Your task to perform on an android device: install app "Adobe Express: Graphic Design" Image 0: 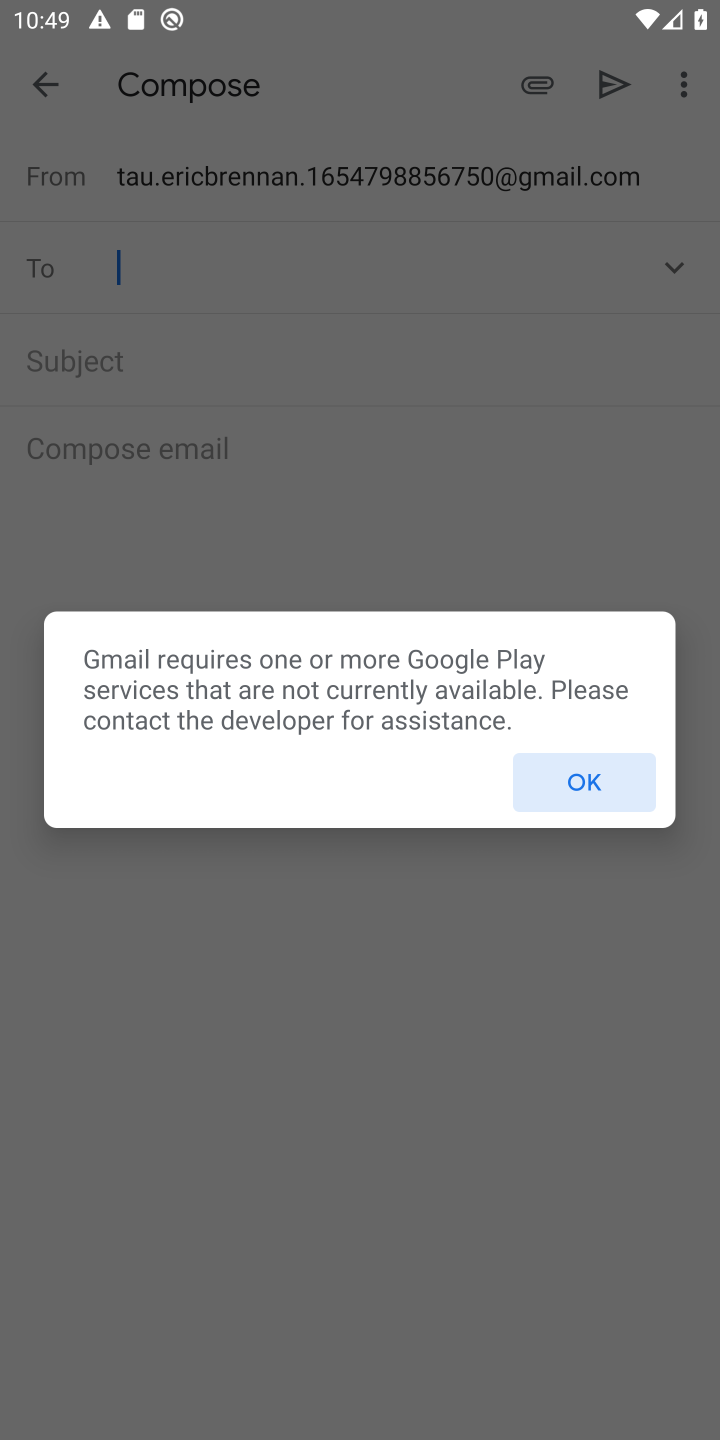
Step 0: press home button
Your task to perform on an android device: install app "Adobe Express: Graphic Design" Image 1: 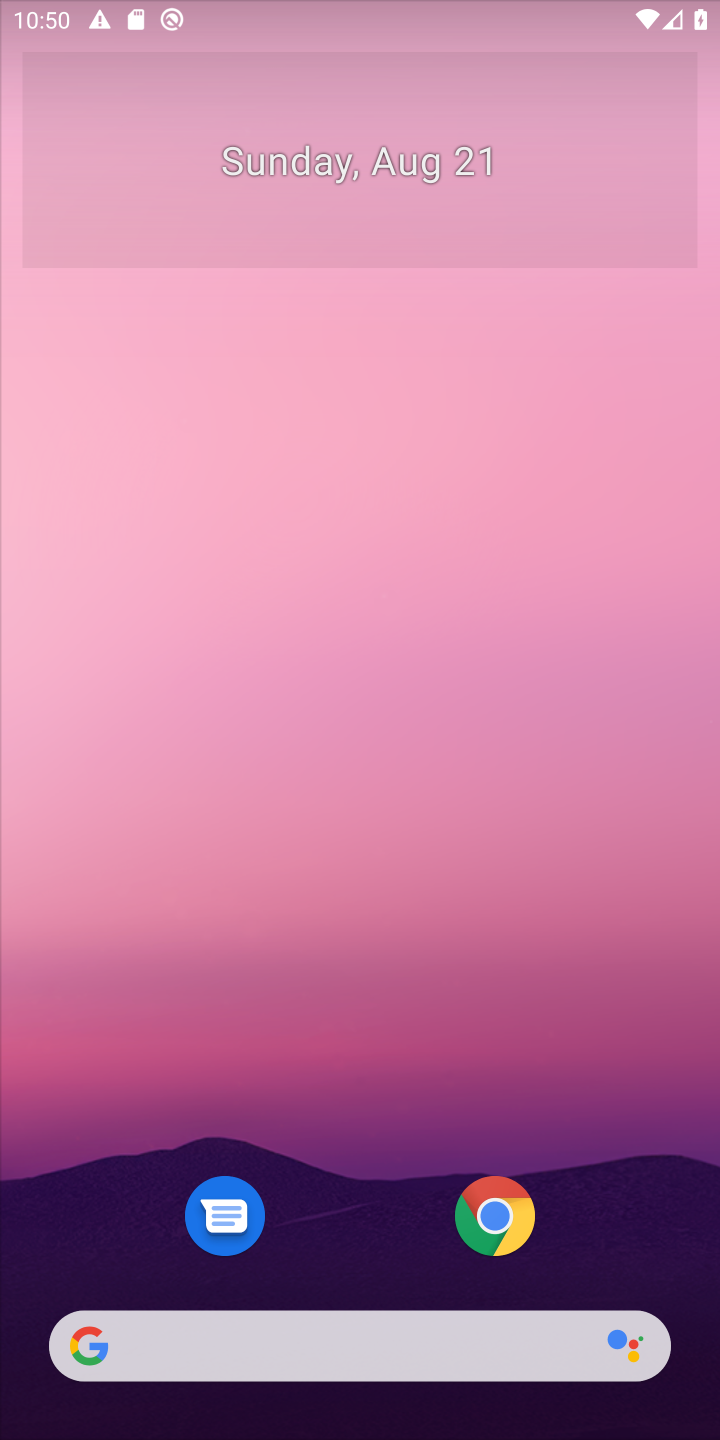
Step 1: drag from (271, 1280) to (714, 245)
Your task to perform on an android device: install app "Adobe Express: Graphic Design" Image 2: 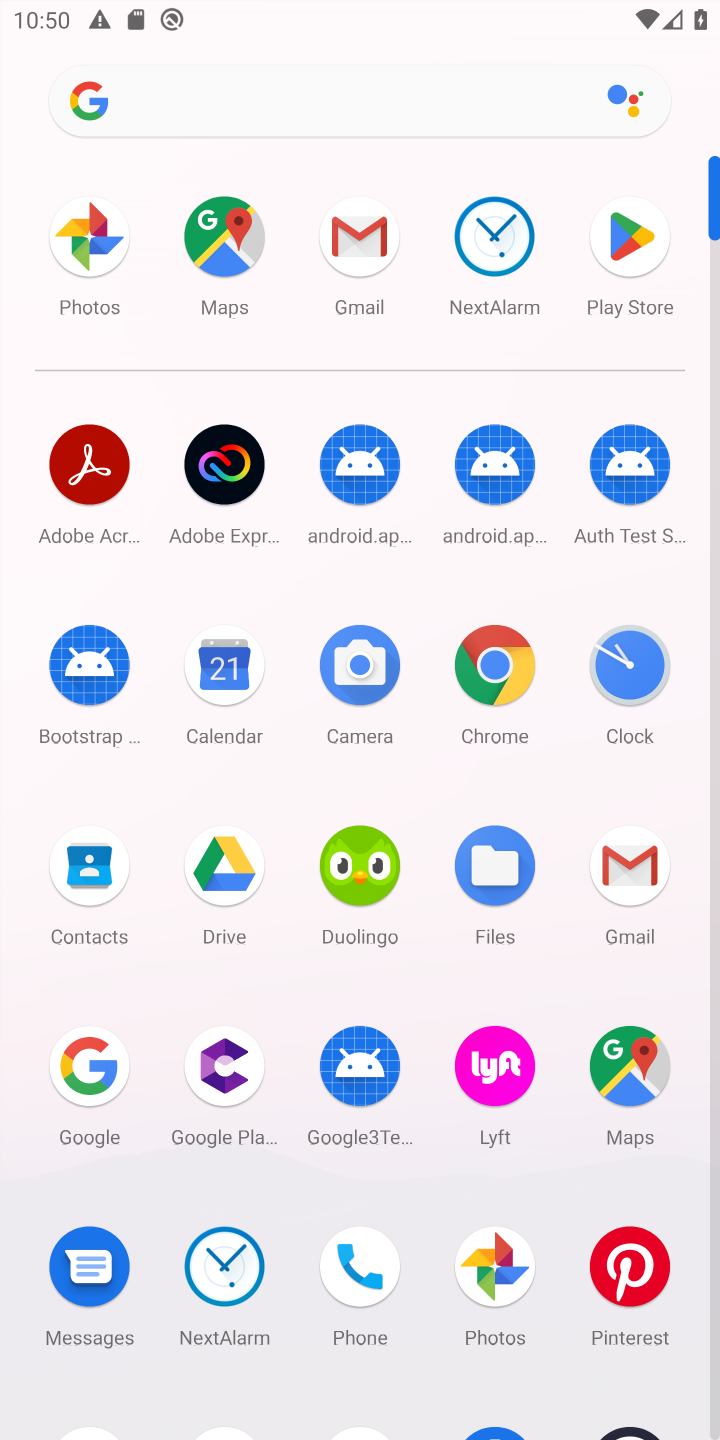
Step 2: click (642, 243)
Your task to perform on an android device: install app "Adobe Express: Graphic Design" Image 3: 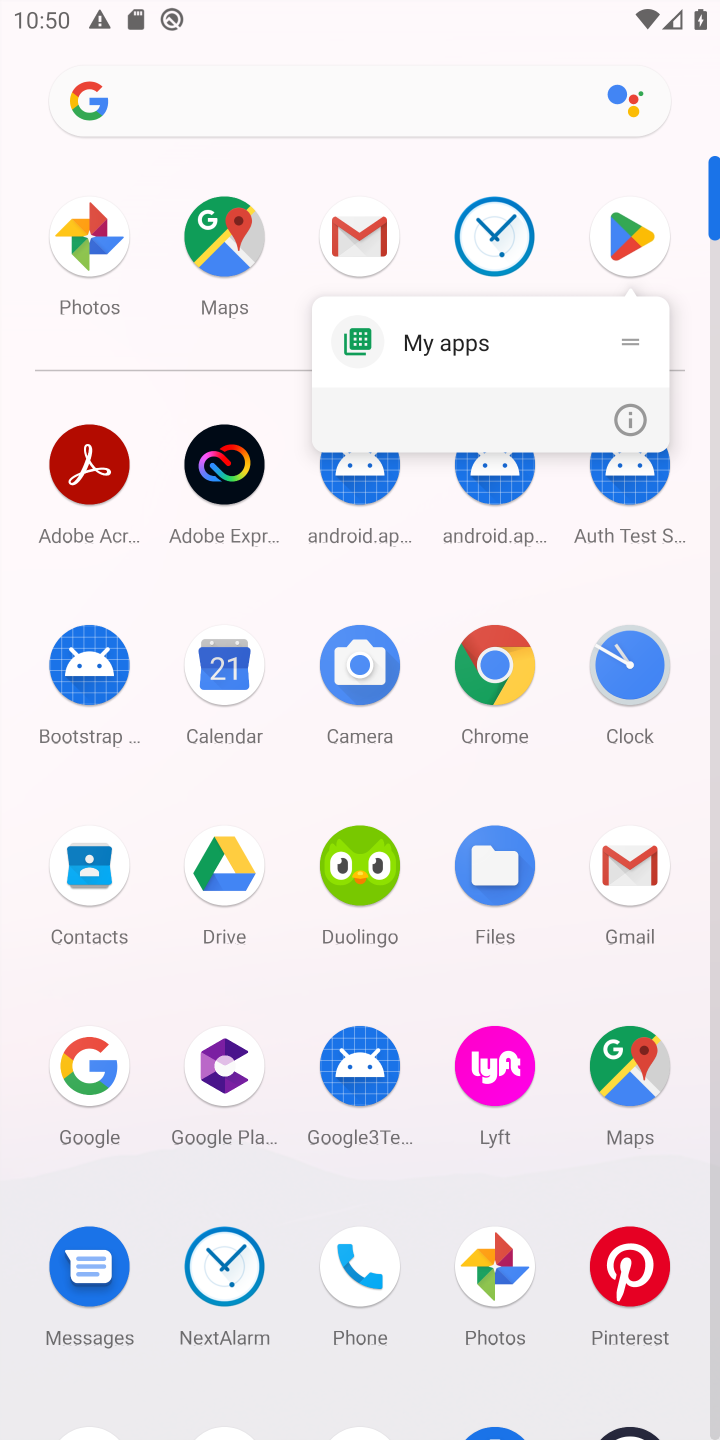
Step 3: click (642, 243)
Your task to perform on an android device: install app "Adobe Express: Graphic Design" Image 4: 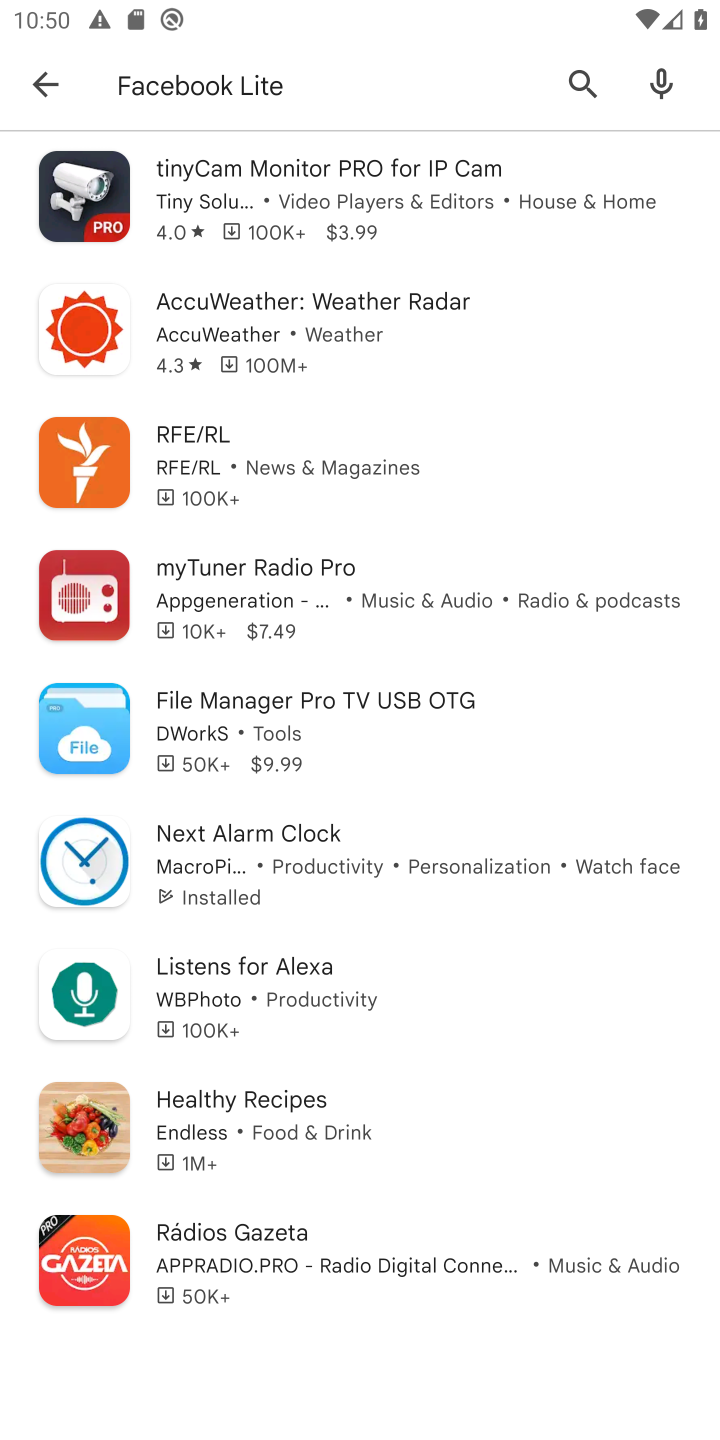
Step 4: press back button
Your task to perform on an android device: install app "Adobe Express: Graphic Design" Image 5: 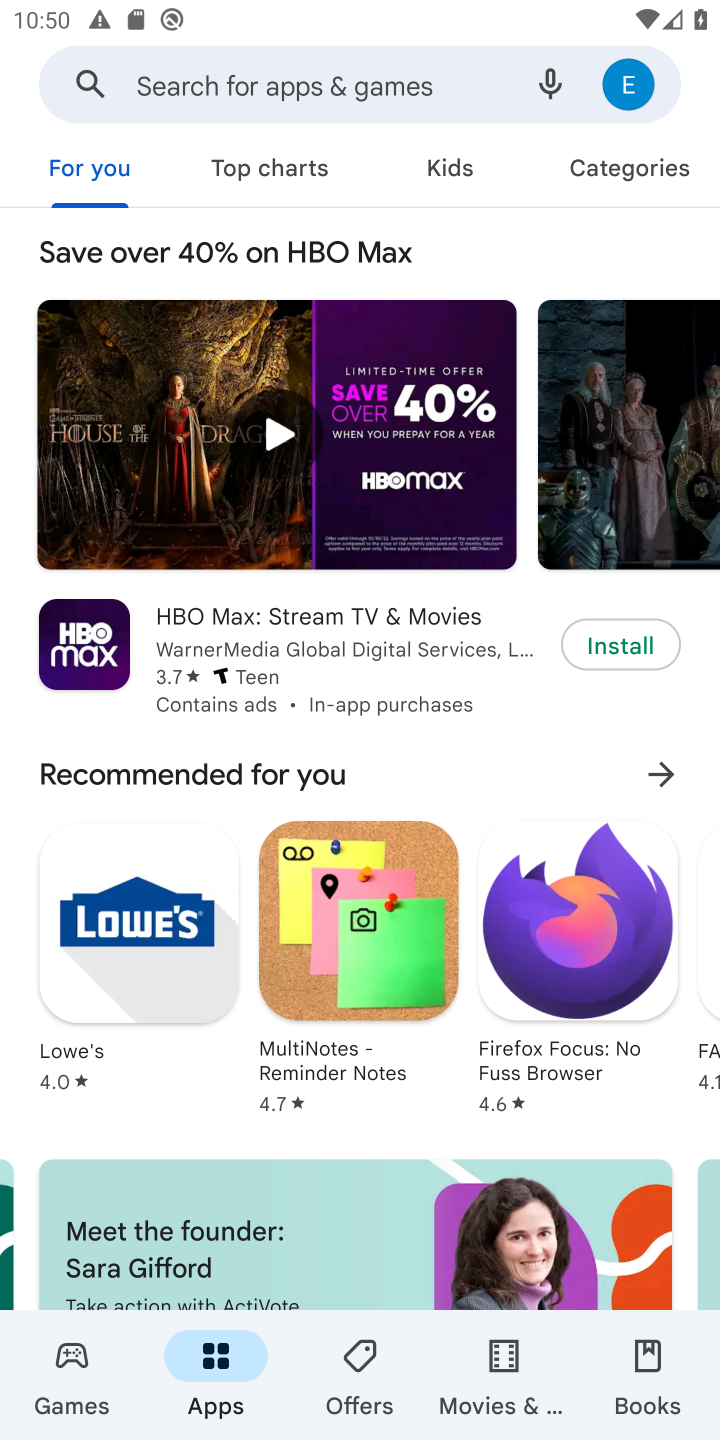
Step 5: click (209, 94)
Your task to perform on an android device: install app "Adobe Express: Graphic Design" Image 6: 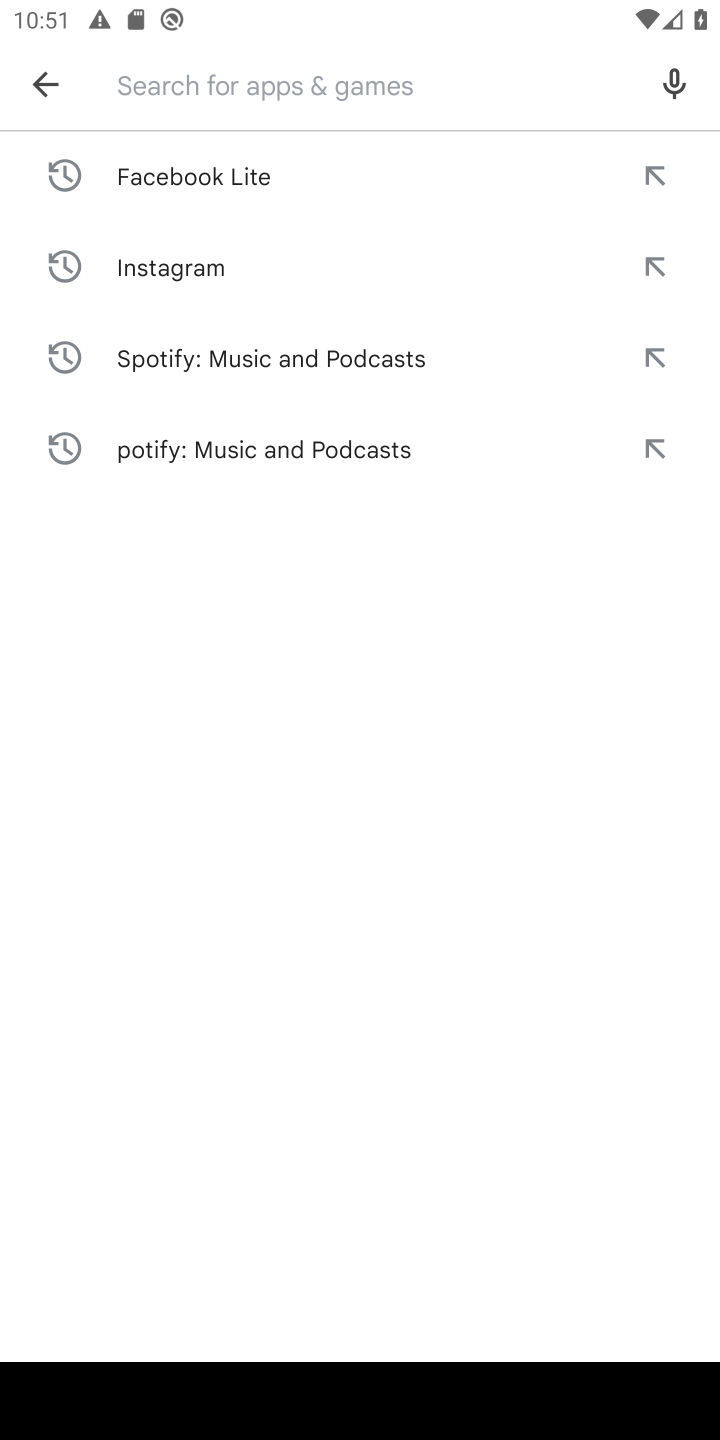
Step 6: type "Adobe Express: Graphic Design"
Your task to perform on an android device: install app "Adobe Express: Graphic Design" Image 7: 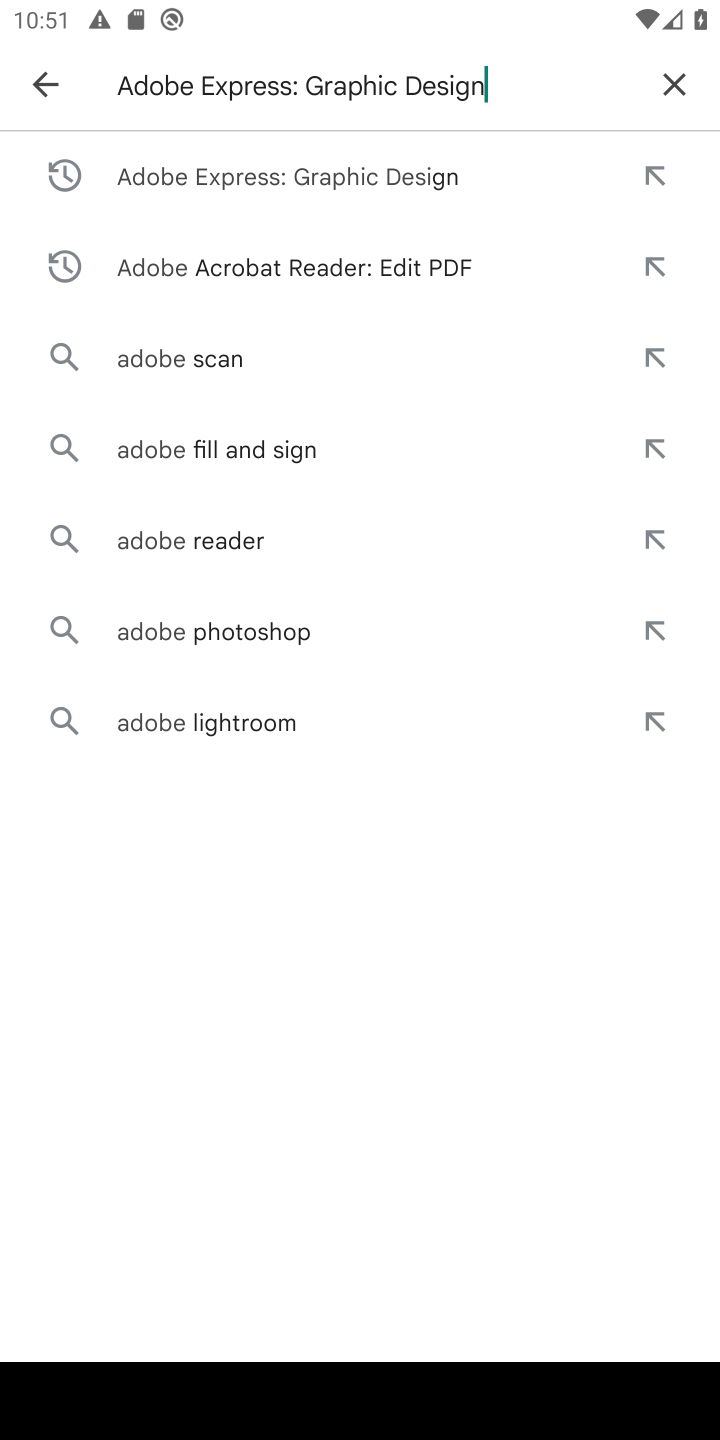
Step 7: press enter
Your task to perform on an android device: install app "Adobe Express: Graphic Design" Image 8: 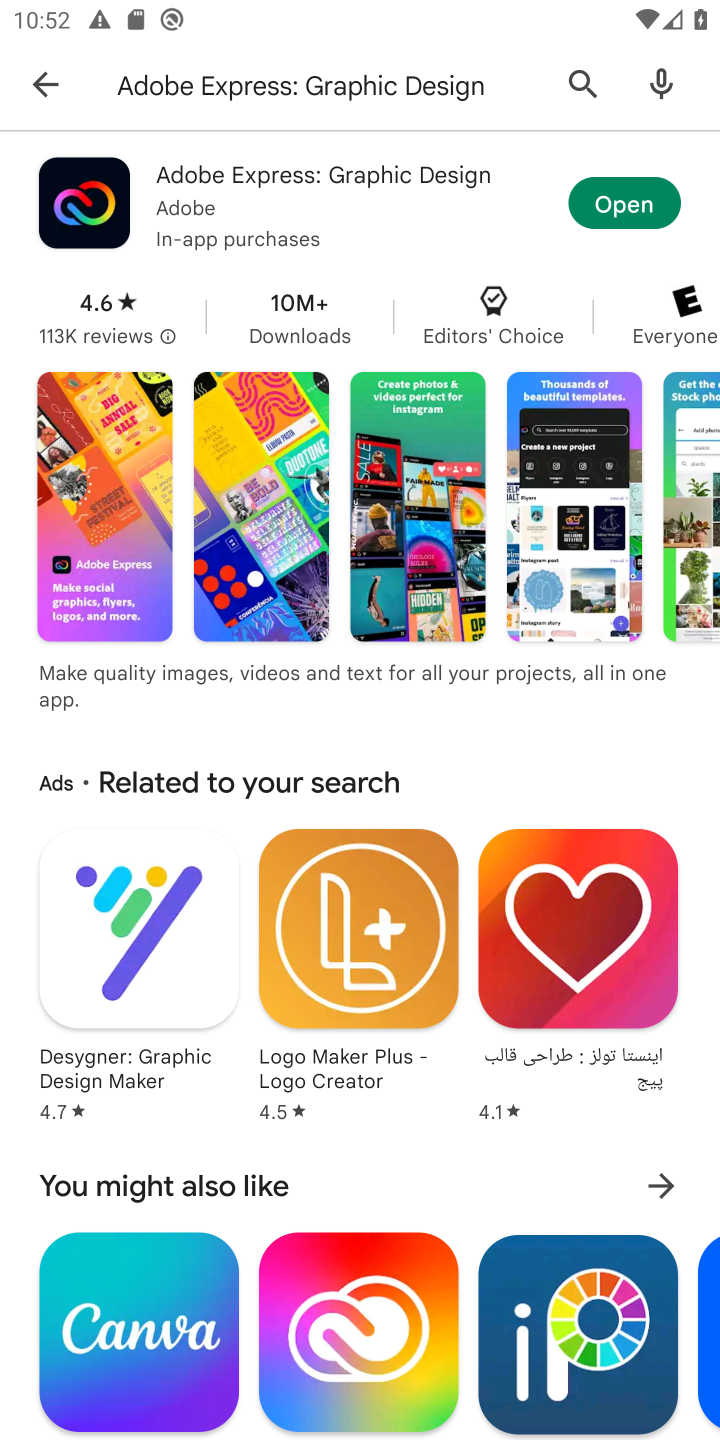
Step 8: click (643, 203)
Your task to perform on an android device: install app "Adobe Express: Graphic Design" Image 9: 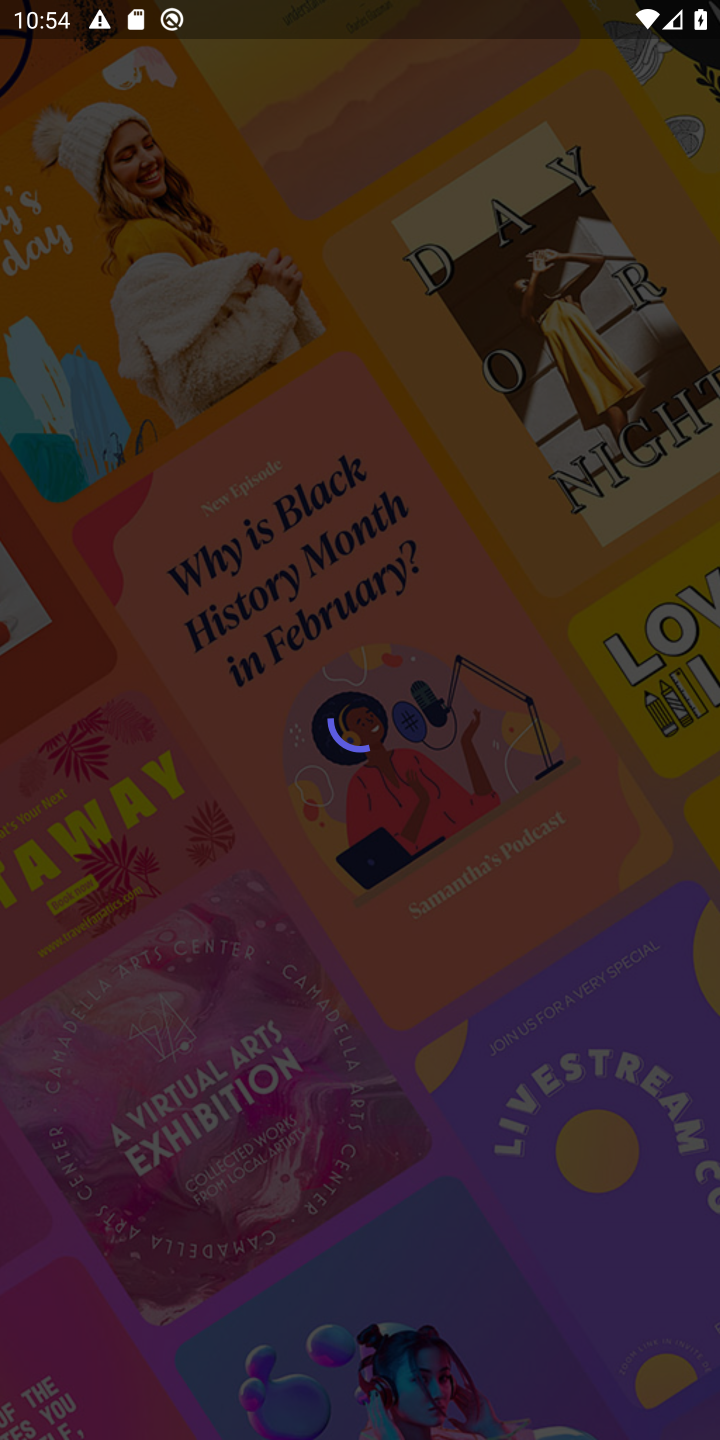
Step 9: task complete